Your task to perform on an android device: check data usage Image 0: 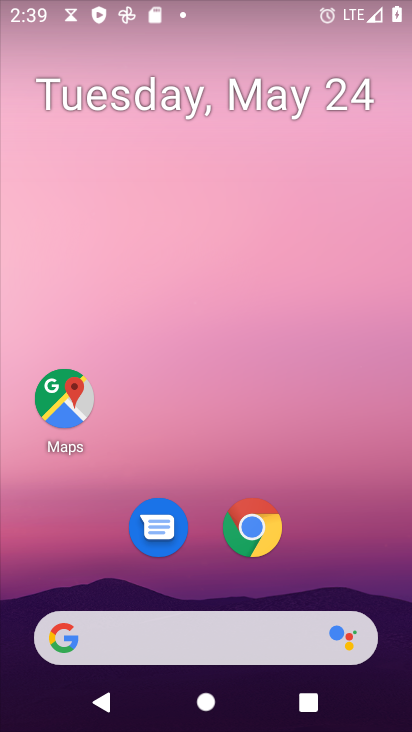
Step 0: press home button
Your task to perform on an android device: check data usage Image 1: 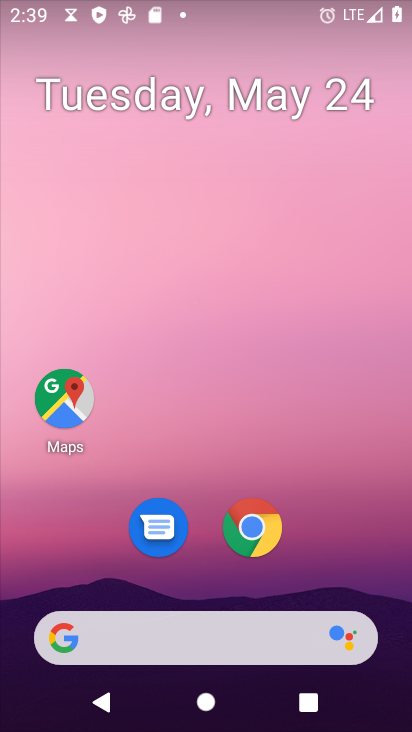
Step 1: drag from (248, 633) to (328, 106)
Your task to perform on an android device: check data usage Image 2: 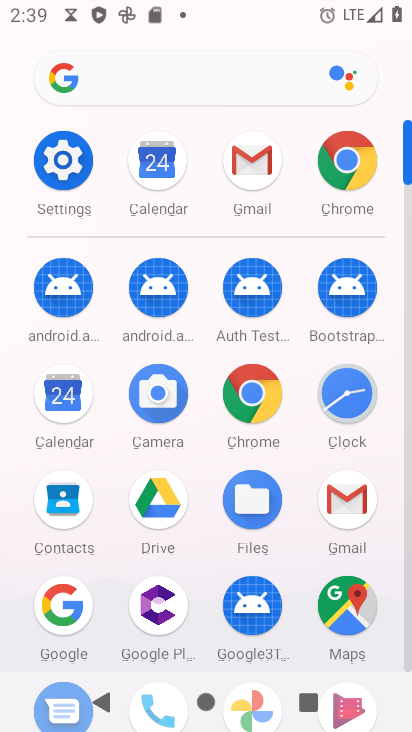
Step 2: click (76, 168)
Your task to perform on an android device: check data usage Image 3: 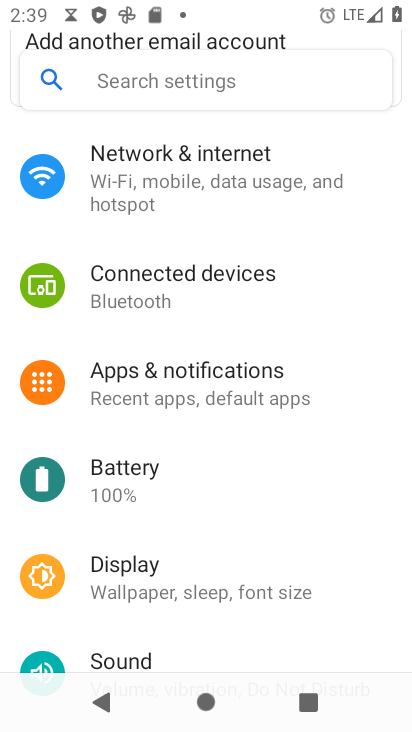
Step 3: click (241, 179)
Your task to perform on an android device: check data usage Image 4: 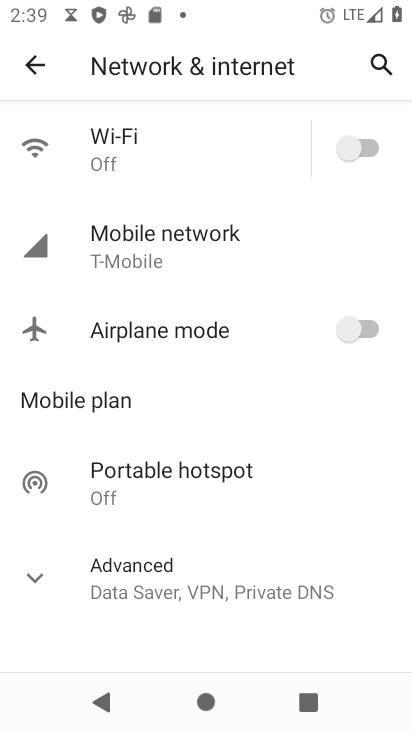
Step 4: click (130, 162)
Your task to perform on an android device: check data usage Image 5: 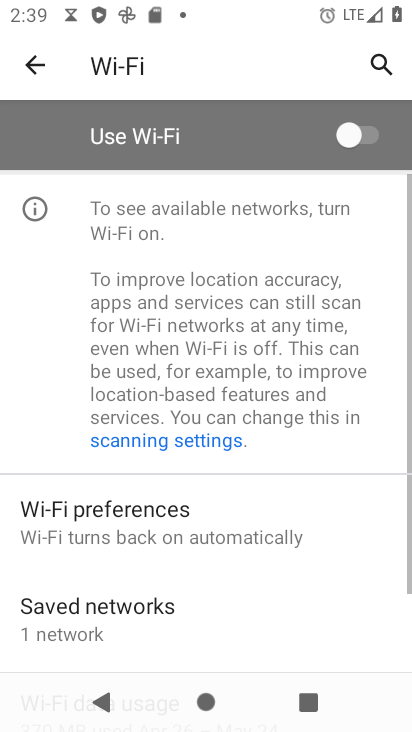
Step 5: drag from (238, 645) to (299, 167)
Your task to perform on an android device: check data usage Image 6: 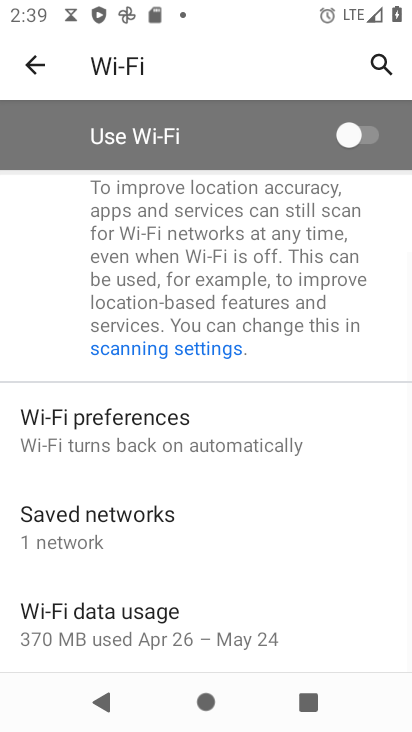
Step 6: click (141, 640)
Your task to perform on an android device: check data usage Image 7: 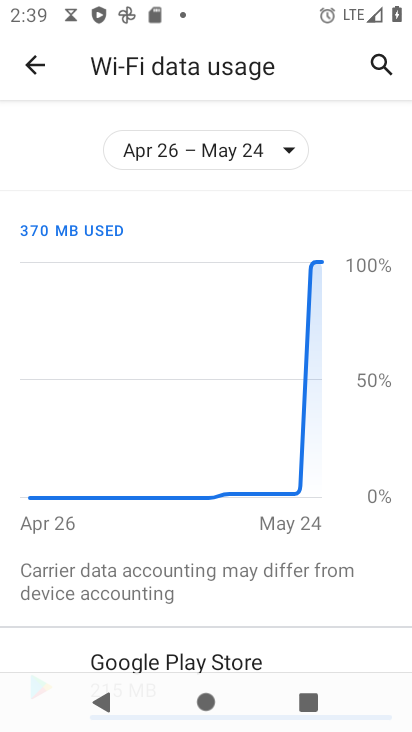
Step 7: task complete